Your task to perform on an android device: toggle data saver in the chrome app Image 0: 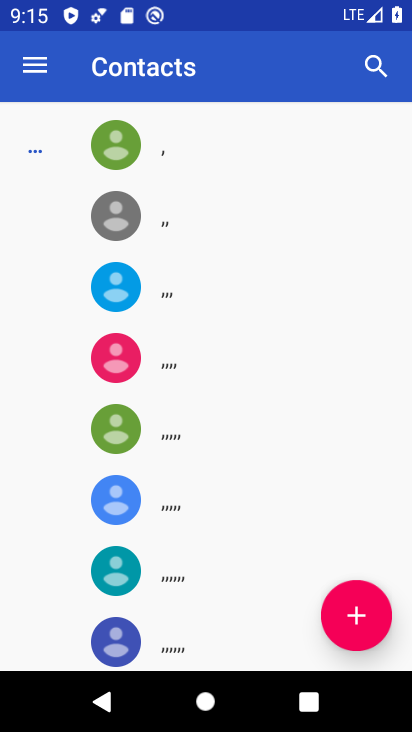
Step 0: press home button
Your task to perform on an android device: toggle data saver in the chrome app Image 1: 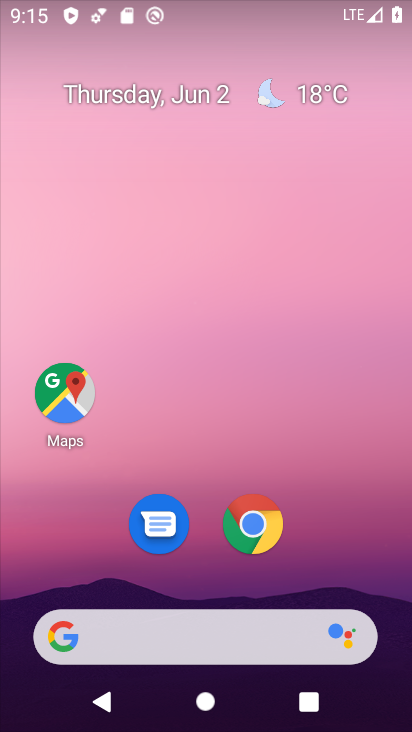
Step 1: click (248, 525)
Your task to perform on an android device: toggle data saver in the chrome app Image 2: 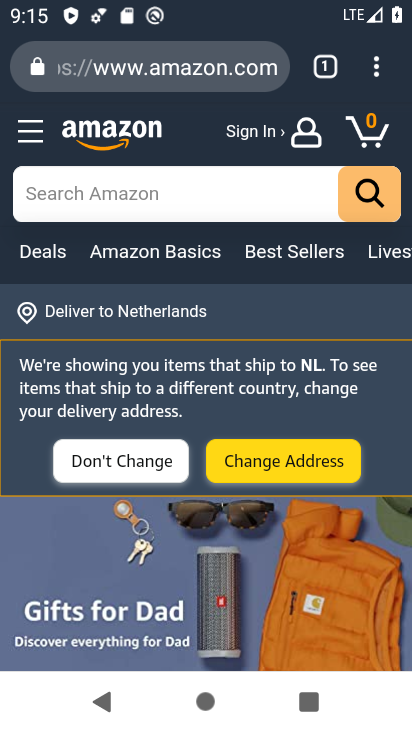
Step 2: click (370, 69)
Your task to perform on an android device: toggle data saver in the chrome app Image 3: 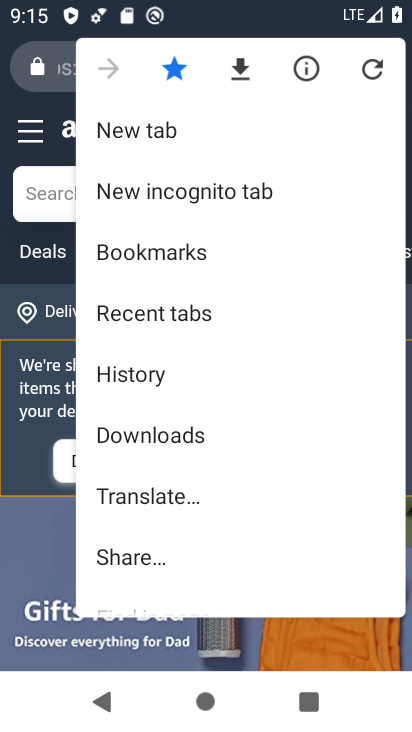
Step 3: drag from (259, 440) to (223, 153)
Your task to perform on an android device: toggle data saver in the chrome app Image 4: 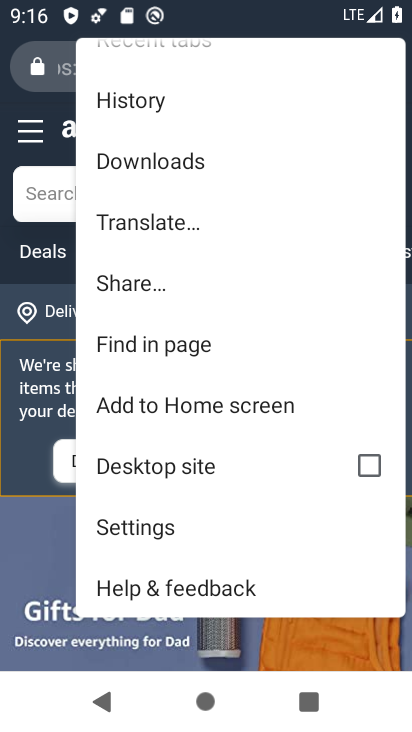
Step 4: click (226, 521)
Your task to perform on an android device: toggle data saver in the chrome app Image 5: 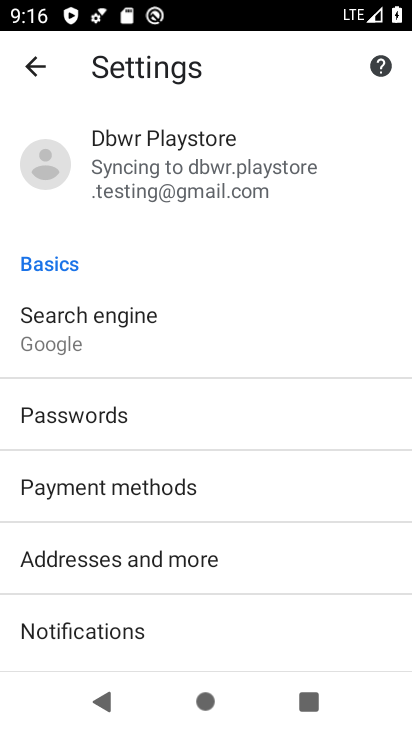
Step 5: drag from (264, 483) to (213, 15)
Your task to perform on an android device: toggle data saver in the chrome app Image 6: 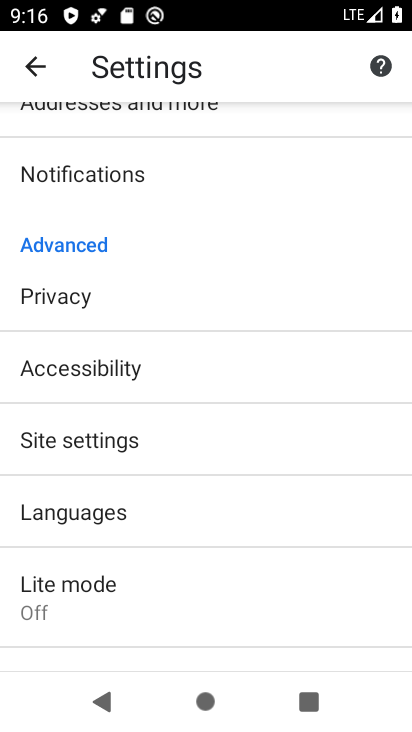
Step 6: click (250, 607)
Your task to perform on an android device: toggle data saver in the chrome app Image 7: 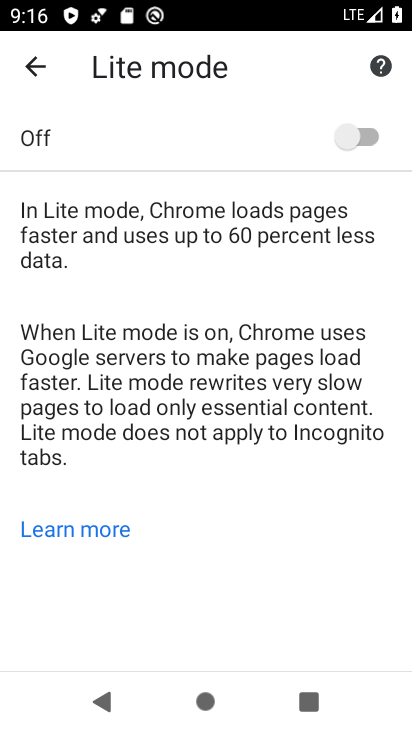
Step 7: click (350, 135)
Your task to perform on an android device: toggle data saver in the chrome app Image 8: 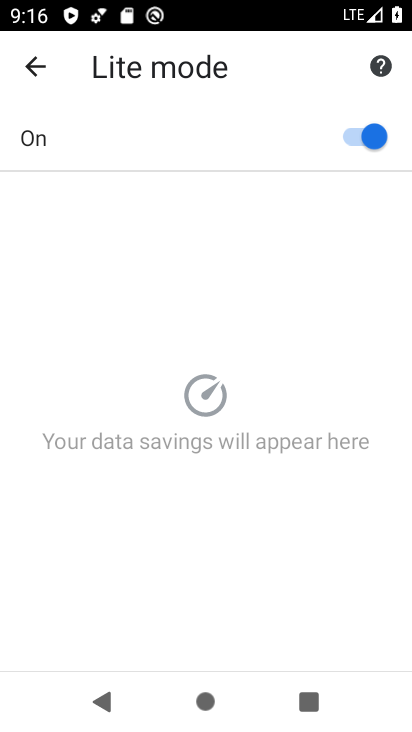
Step 8: task complete